Your task to perform on an android device: open app "Upside-Cash back on gas & food" Image 0: 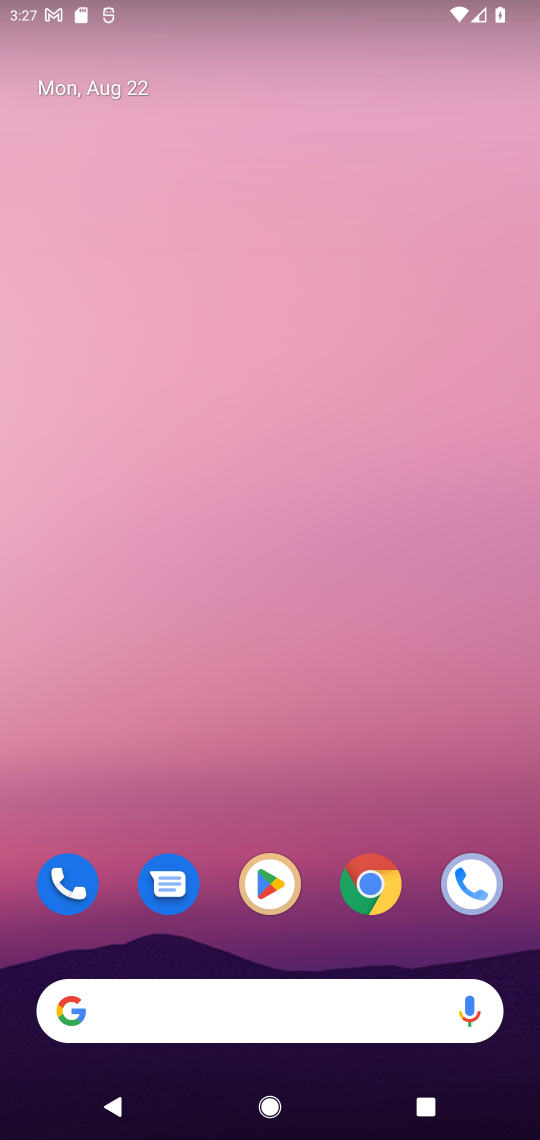
Step 0: click (270, 899)
Your task to perform on an android device: open app "Upside-Cash back on gas & food" Image 1: 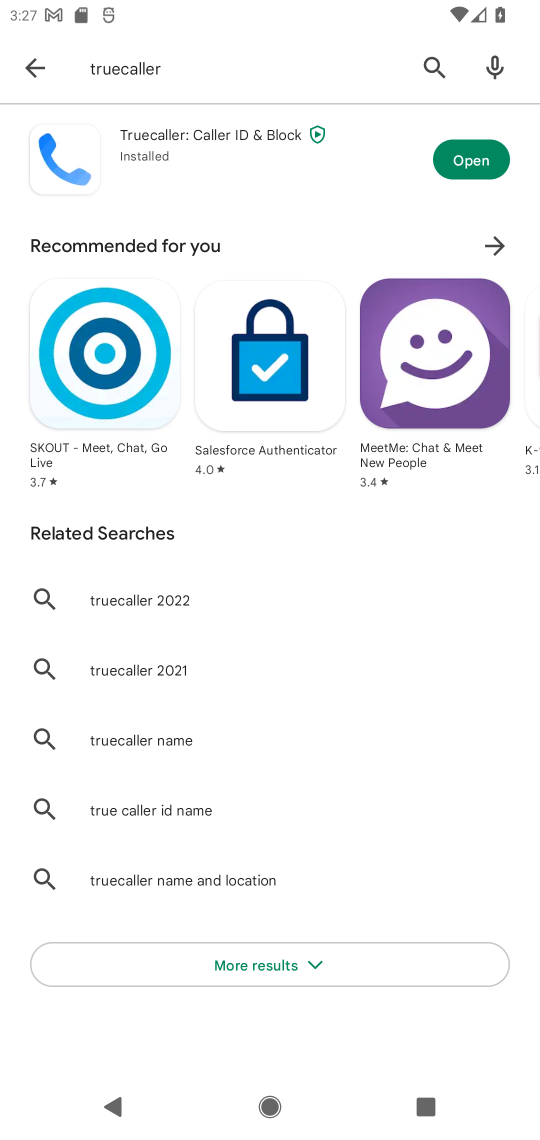
Step 1: click (181, 79)
Your task to perform on an android device: open app "Upside-Cash back on gas & food" Image 2: 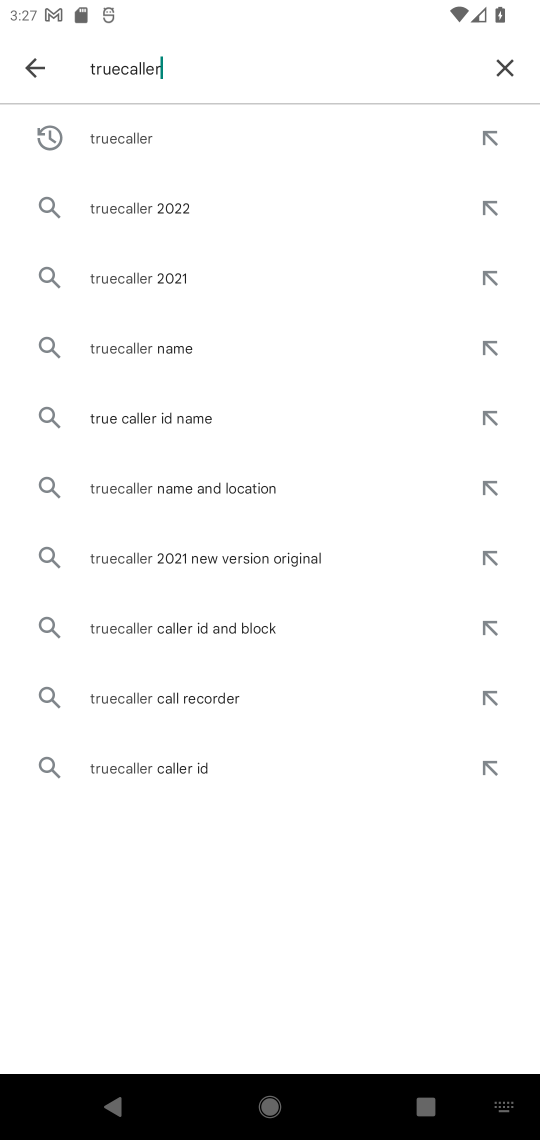
Step 2: click (508, 72)
Your task to perform on an android device: open app "Upside-Cash back on gas & food" Image 3: 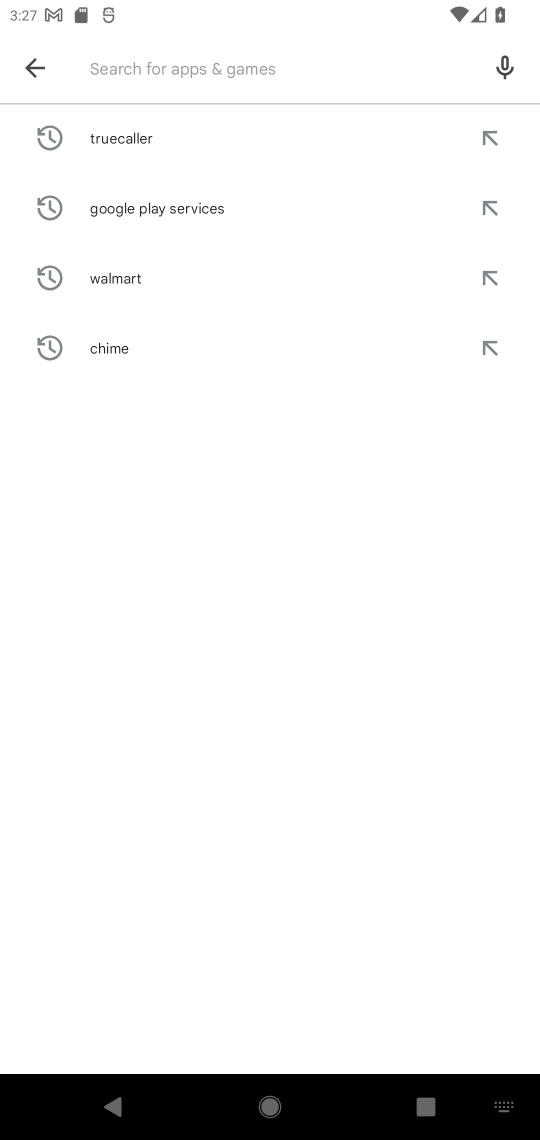
Step 3: type "upside "
Your task to perform on an android device: open app "Upside-Cash back on gas & food" Image 4: 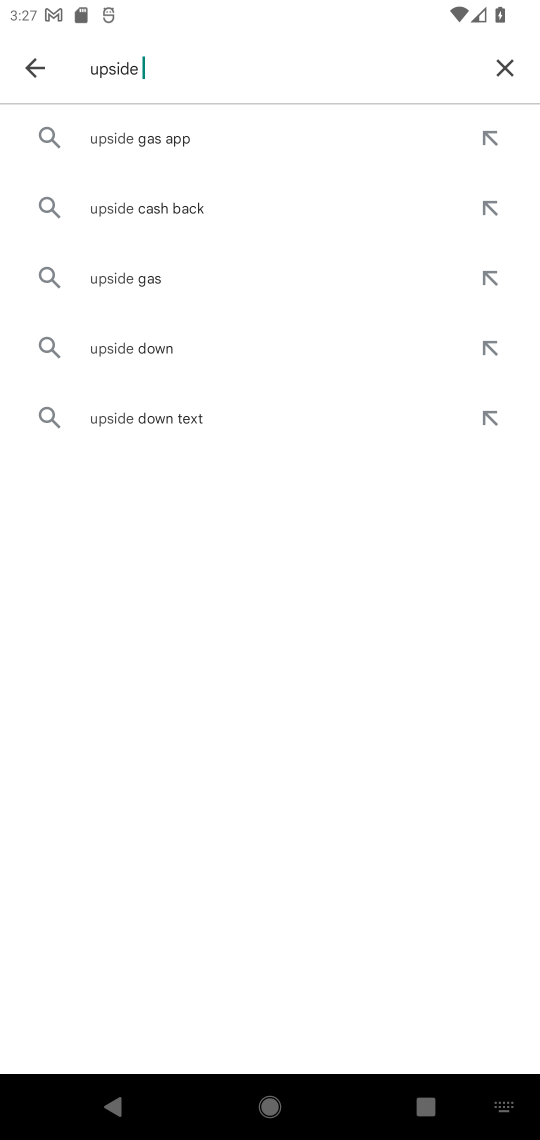
Step 4: click (152, 217)
Your task to perform on an android device: open app "Upside-Cash back on gas & food" Image 5: 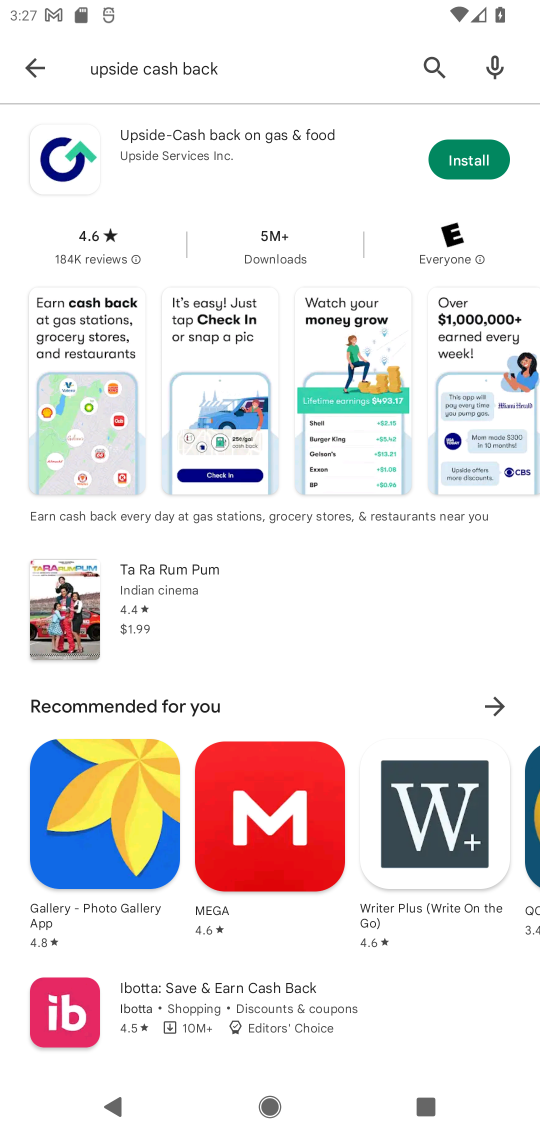
Step 5: task complete